Your task to perform on an android device: open sync settings in chrome Image 0: 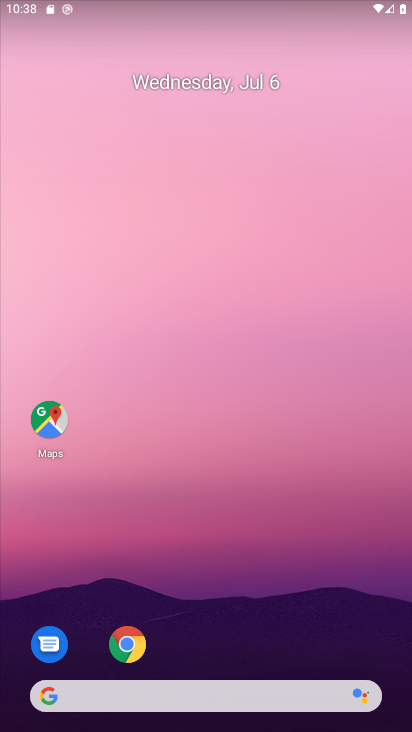
Step 0: drag from (245, 640) to (228, 156)
Your task to perform on an android device: open sync settings in chrome Image 1: 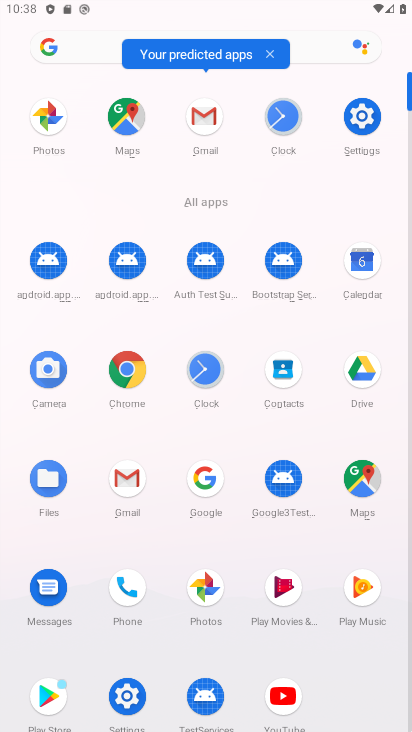
Step 1: click (134, 365)
Your task to perform on an android device: open sync settings in chrome Image 2: 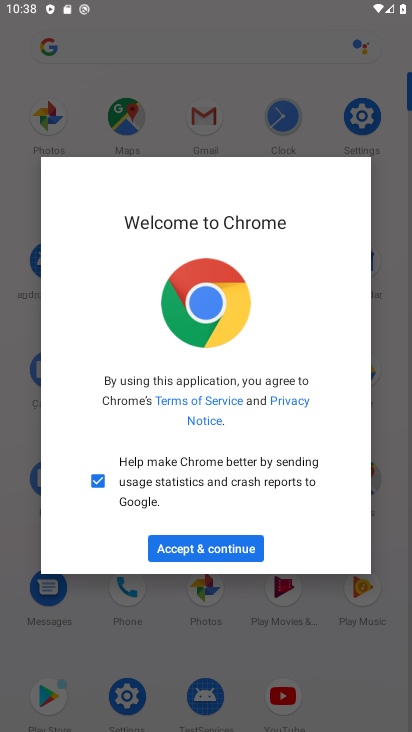
Step 2: click (215, 542)
Your task to perform on an android device: open sync settings in chrome Image 3: 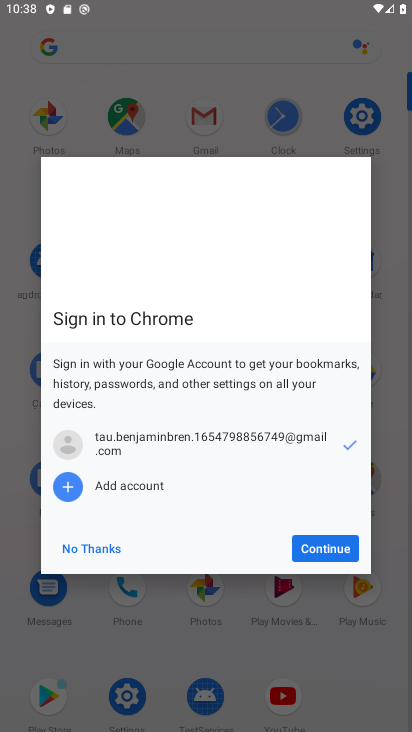
Step 3: click (325, 543)
Your task to perform on an android device: open sync settings in chrome Image 4: 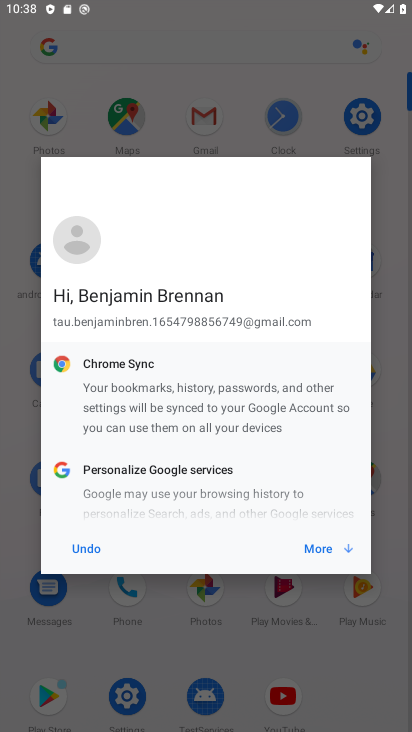
Step 4: click (325, 543)
Your task to perform on an android device: open sync settings in chrome Image 5: 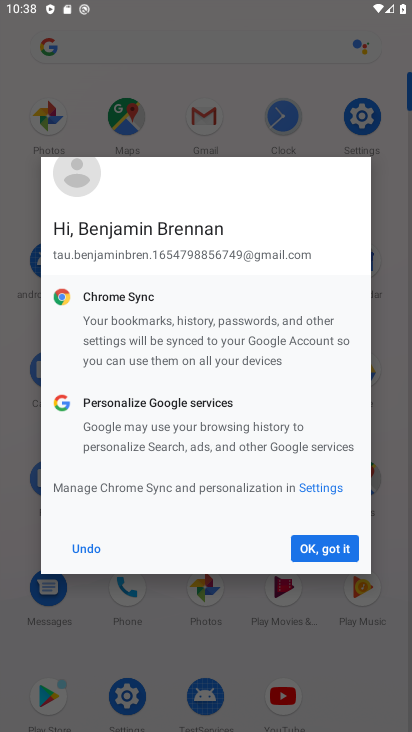
Step 5: click (325, 543)
Your task to perform on an android device: open sync settings in chrome Image 6: 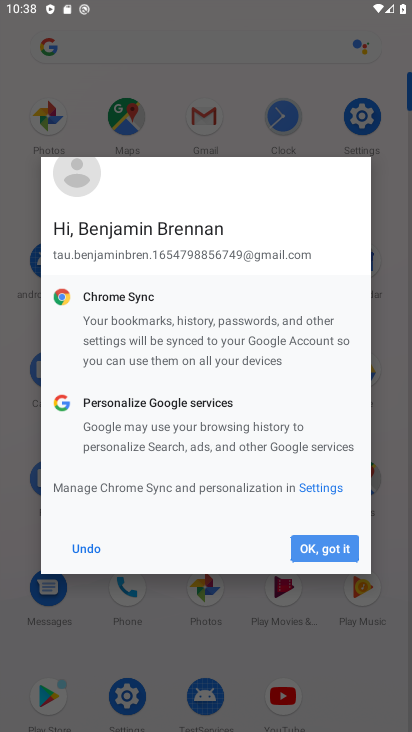
Step 6: click (344, 553)
Your task to perform on an android device: open sync settings in chrome Image 7: 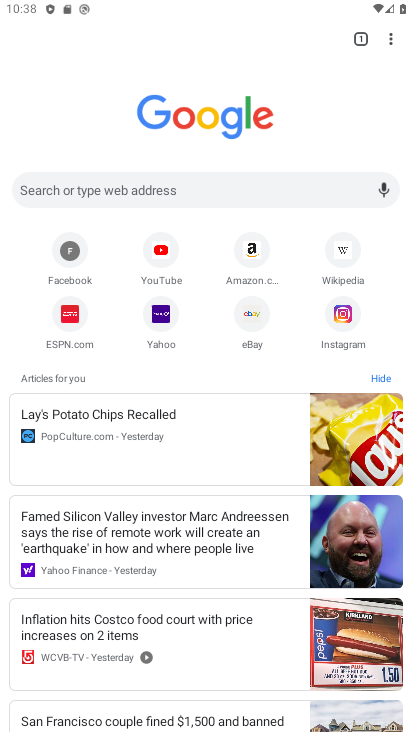
Step 7: click (386, 47)
Your task to perform on an android device: open sync settings in chrome Image 8: 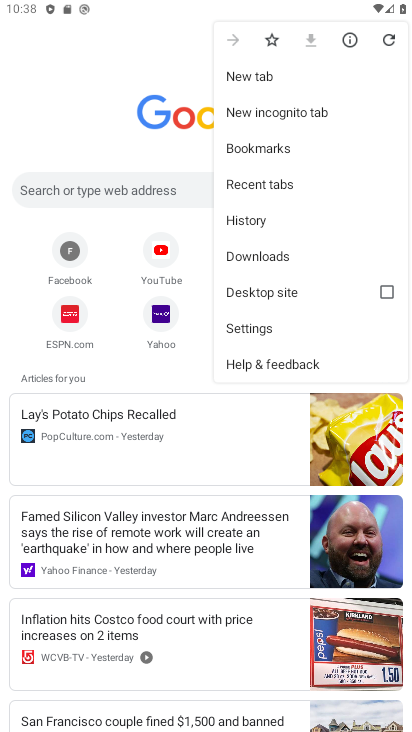
Step 8: click (305, 326)
Your task to perform on an android device: open sync settings in chrome Image 9: 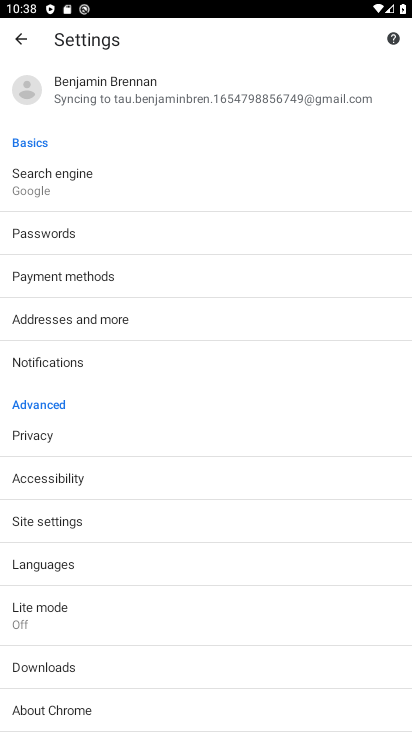
Step 9: click (201, 100)
Your task to perform on an android device: open sync settings in chrome Image 10: 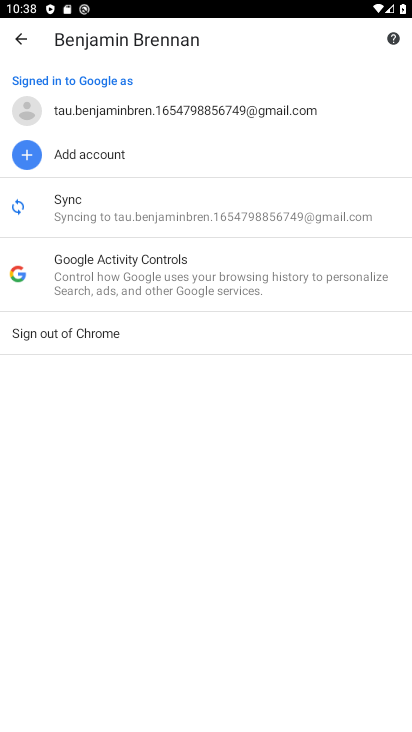
Step 10: click (221, 198)
Your task to perform on an android device: open sync settings in chrome Image 11: 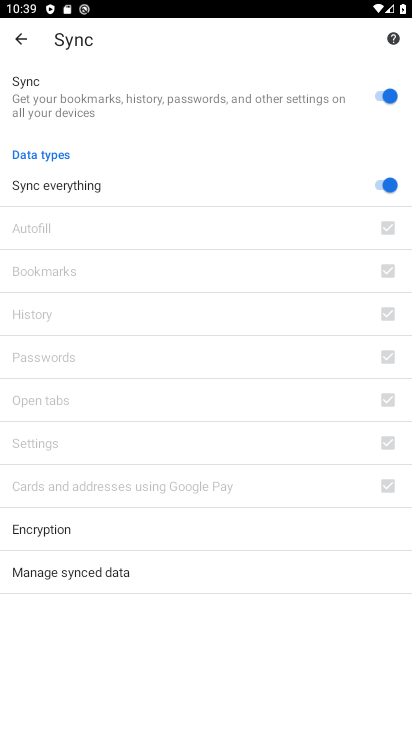
Step 11: task complete